Your task to perform on an android device: toggle notification dots Image 0: 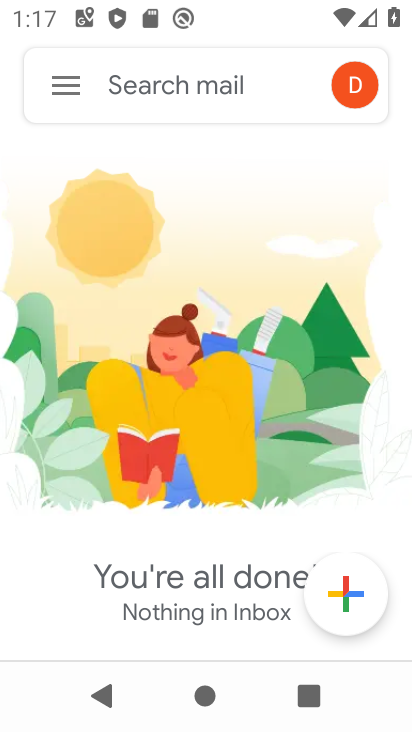
Step 0: drag from (268, 2) to (170, 726)
Your task to perform on an android device: toggle notification dots Image 1: 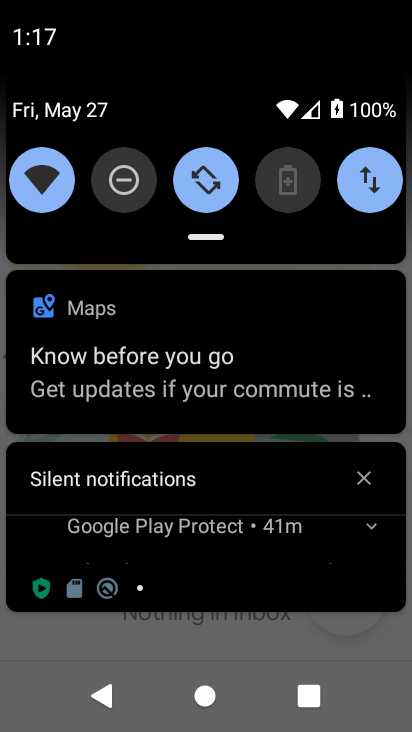
Step 1: drag from (203, 66) to (212, 655)
Your task to perform on an android device: toggle notification dots Image 2: 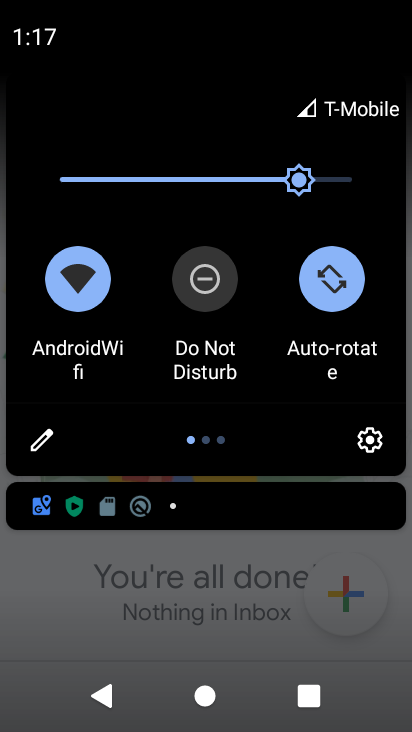
Step 2: click (381, 447)
Your task to perform on an android device: toggle notification dots Image 3: 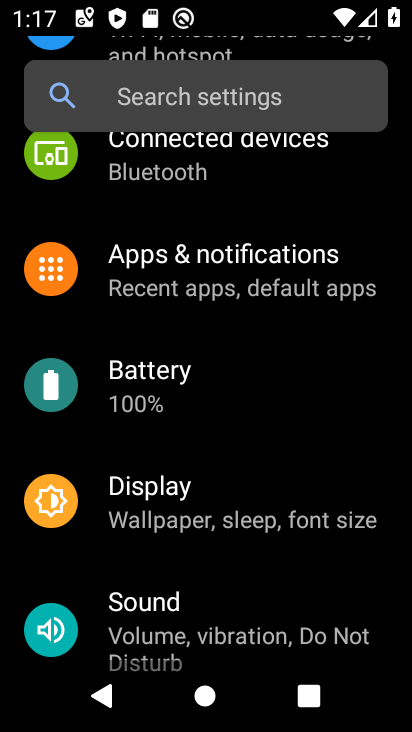
Step 3: click (249, 233)
Your task to perform on an android device: toggle notification dots Image 4: 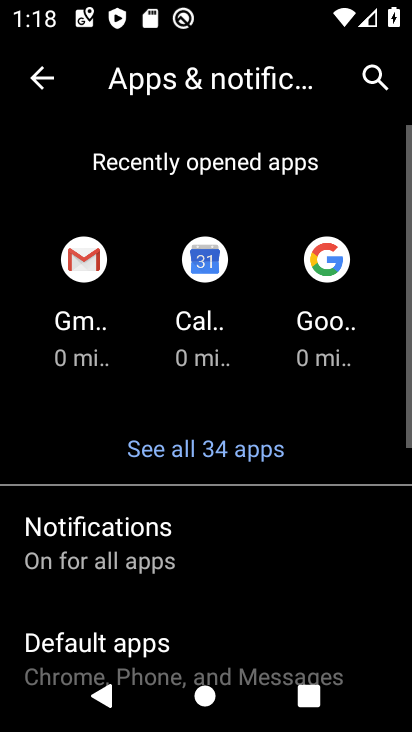
Step 4: click (193, 541)
Your task to perform on an android device: toggle notification dots Image 5: 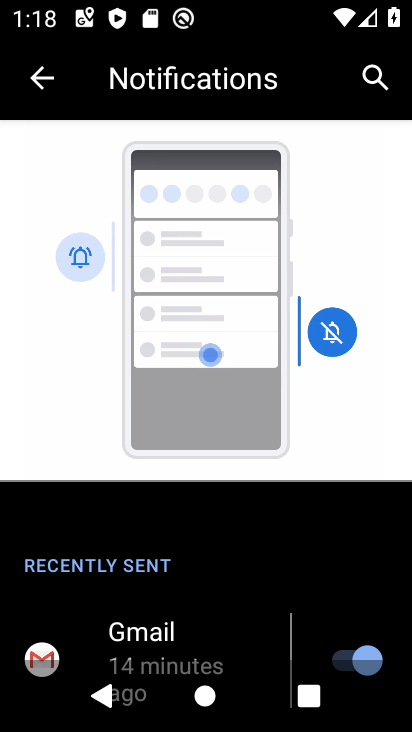
Step 5: drag from (193, 541) to (253, 46)
Your task to perform on an android device: toggle notification dots Image 6: 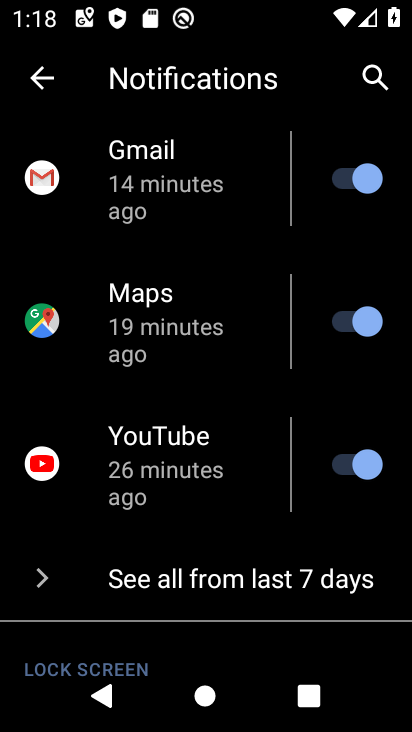
Step 6: drag from (174, 558) to (251, 100)
Your task to perform on an android device: toggle notification dots Image 7: 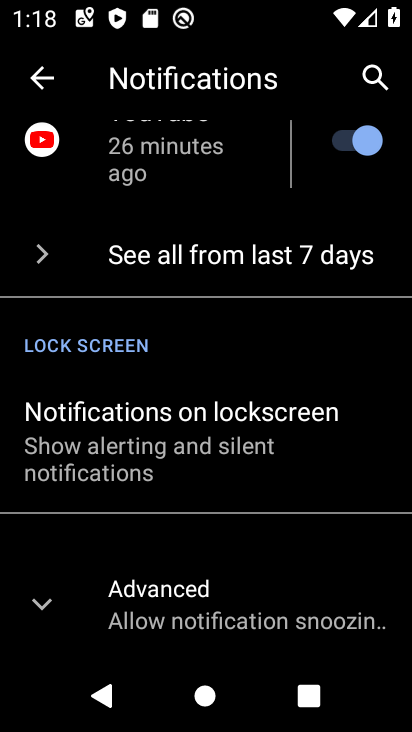
Step 7: click (164, 411)
Your task to perform on an android device: toggle notification dots Image 8: 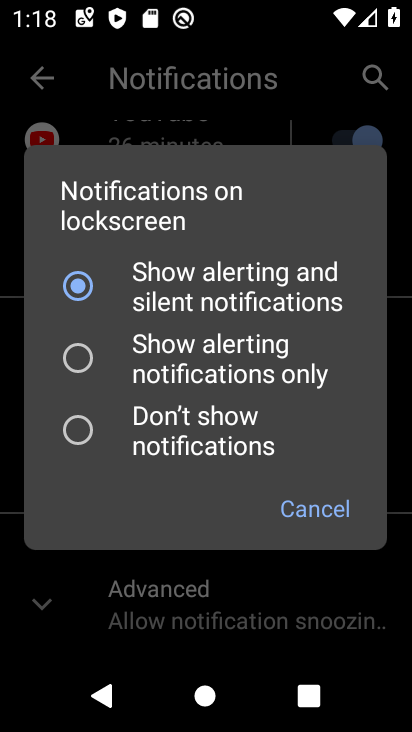
Step 8: click (315, 517)
Your task to perform on an android device: toggle notification dots Image 9: 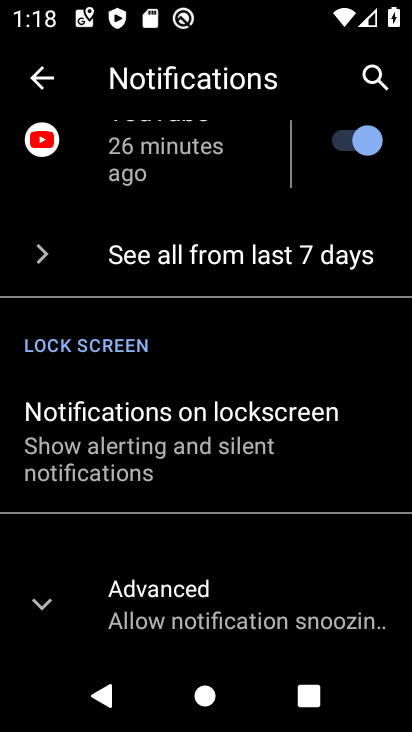
Step 9: click (178, 612)
Your task to perform on an android device: toggle notification dots Image 10: 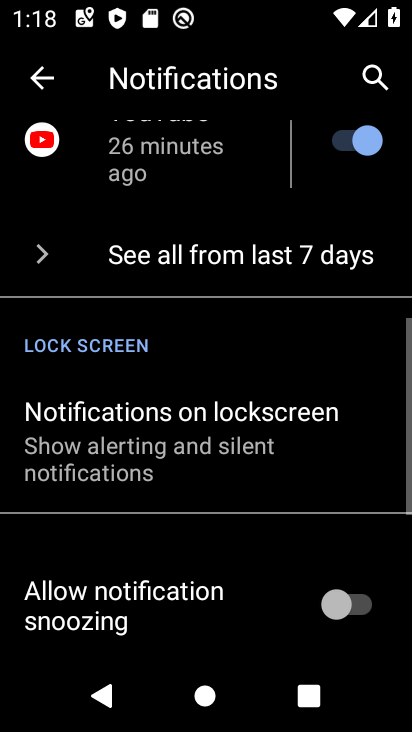
Step 10: drag from (178, 612) to (217, 152)
Your task to perform on an android device: toggle notification dots Image 11: 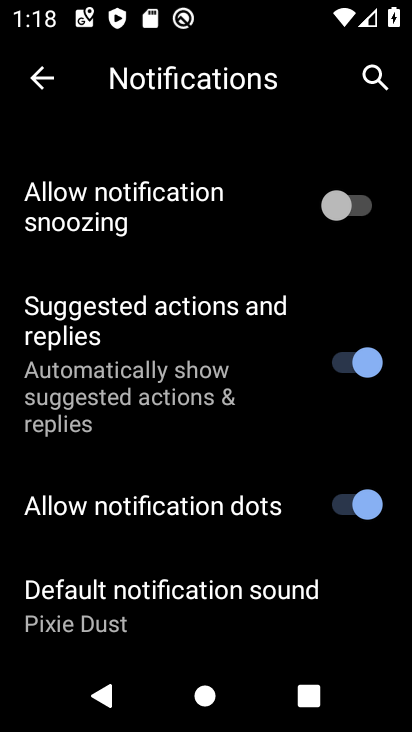
Step 11: click (361, 495)
Your task to perform on an android device: toggle notification dots Image 12: 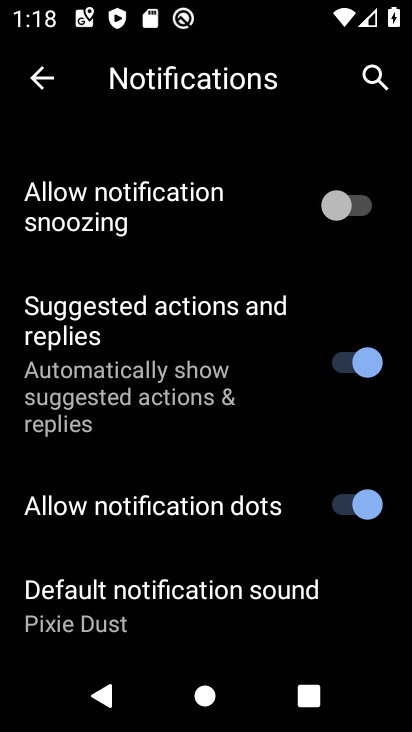
Step 12: click (361, 495)
Your task to perform on an android device: toggle notification dots Image 13: 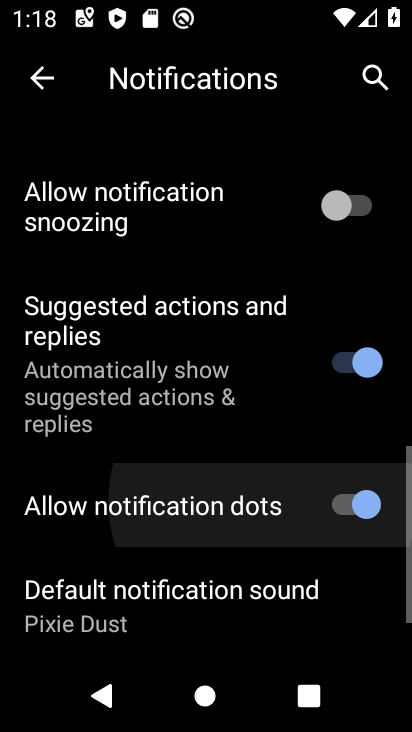
Step 13: click (361, 495)
Your task to perform on an android device: toggle notification dots Image 14: 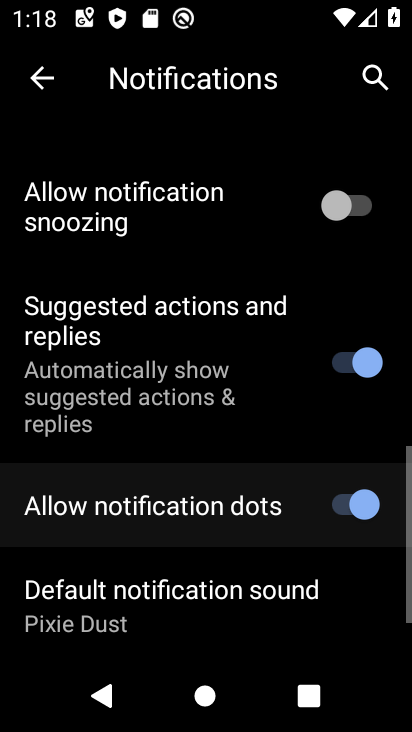
Step 14: click (361, 495)
Your task to perform on an android device: toggle notification dots Image 15: 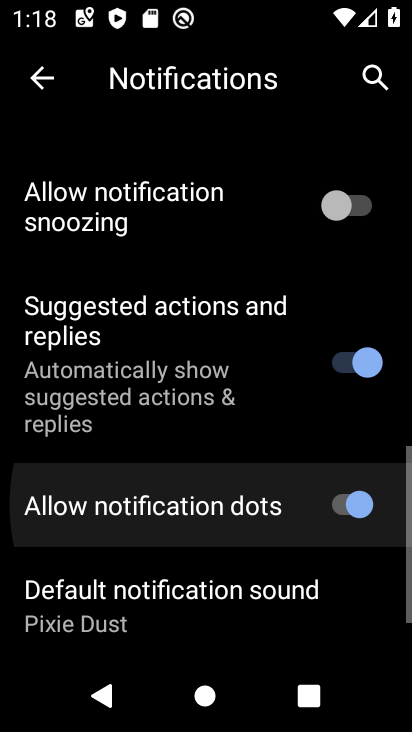
Step 15: click (361, 495)
Your task to perform on an android device: toggle notification dots Image 16: 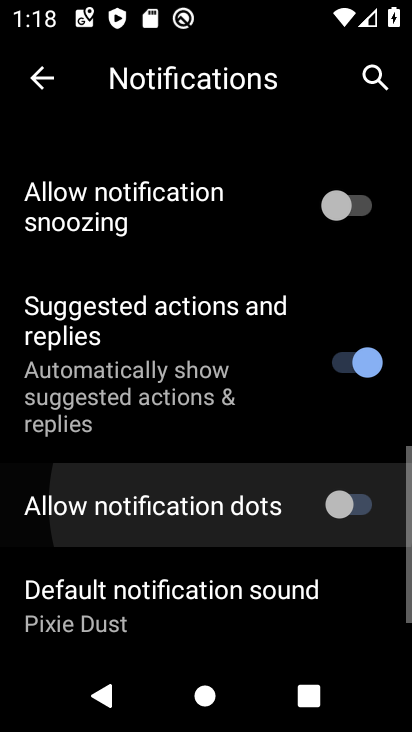
Step 16: click (361, 495)
Your task to perform on an android device: toggle notification dots Image 17: 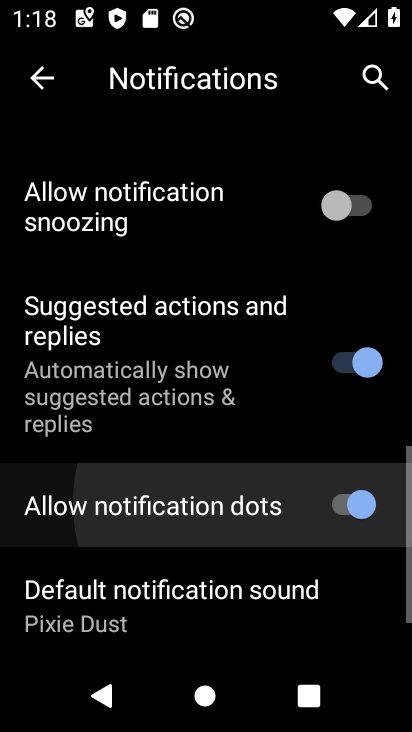
Step 17: click (361, 495)
Your task to perform on an android device: toggle notification dots Image 18: 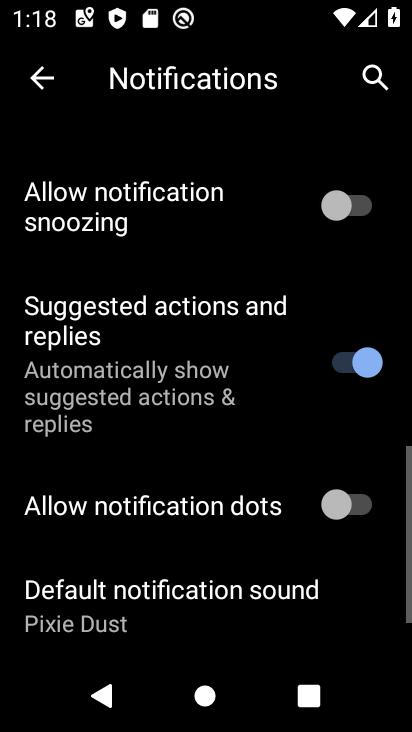
Step 18: click (361, 495)
Your task to perform on an android device: toggle notification dots Image 19: 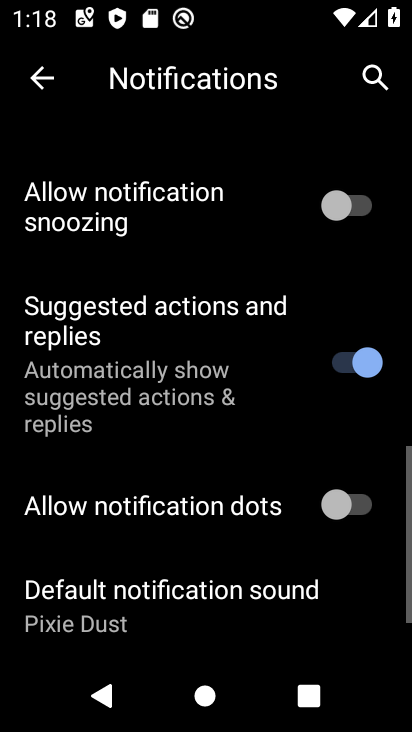
Step 19: click (361, 495)
Your task to perform on an android device: toggle notification dots Image 20: 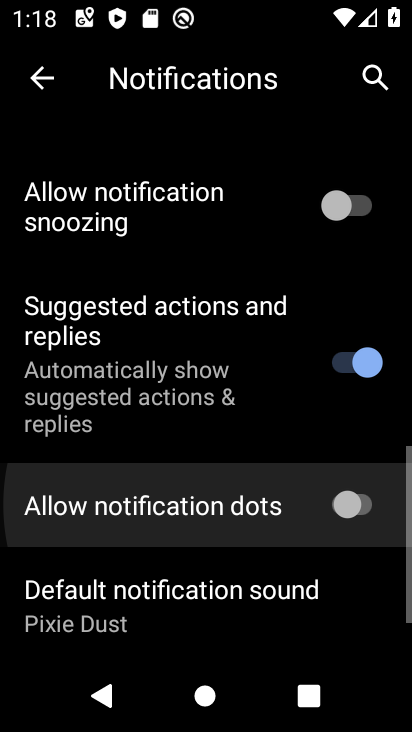
Step 20: click (361, 495)
Your task to perform on an android device: toggle notification dots Image 21: 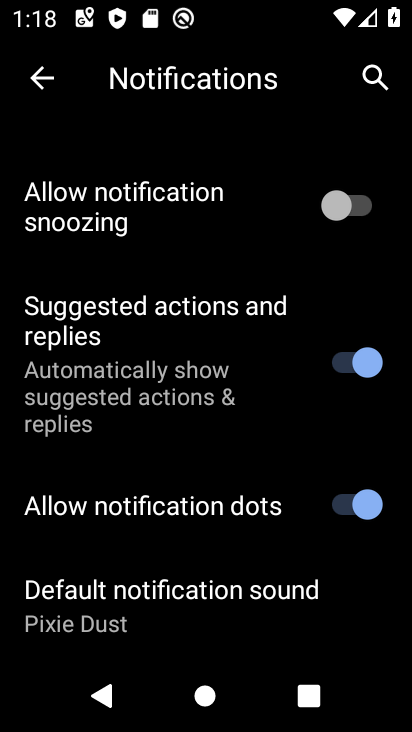
Step 21: task complete